Your task to perform on an android device: empty trash in google photos Image 0: 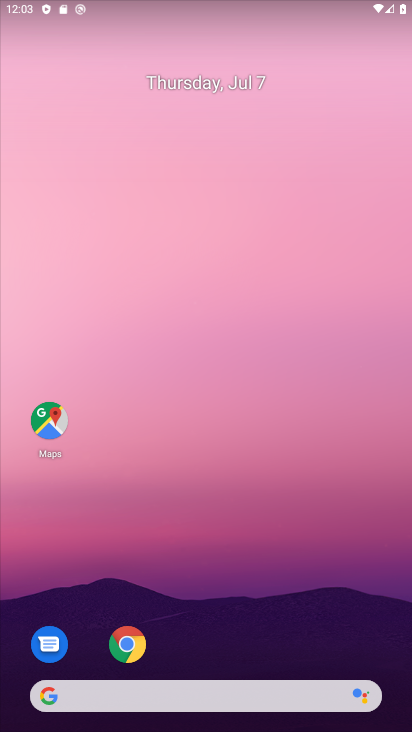
Step 0: drag from (191, 683) to (132, 206)
Your task to perform on an android device: empty trash in google photos Image 1: 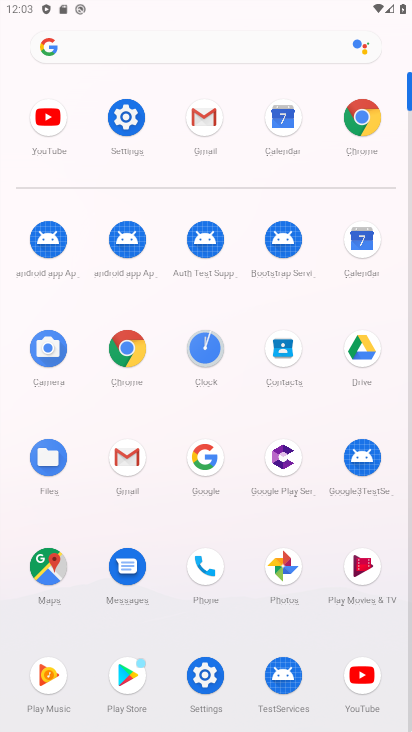
Step 1: click (277, 570)
Your task to perform on an android device: empty trash in google photos Image 2: 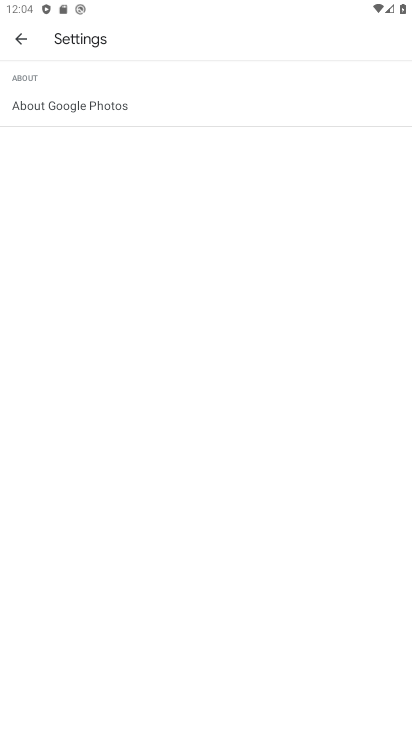
Step 2: click (22, 35)
Your task to perform on an android device: empty trash in google photos Image 3: 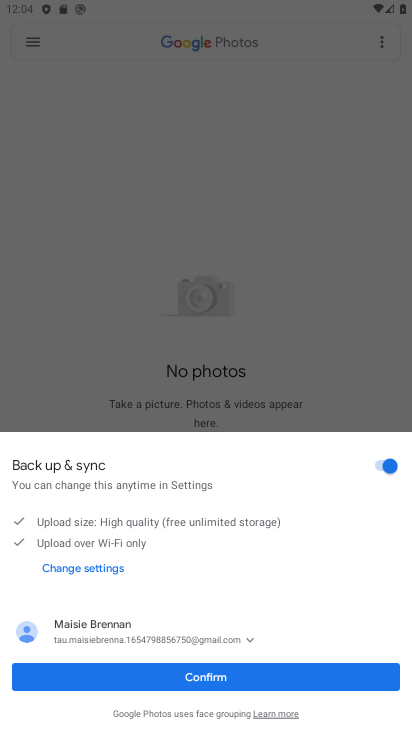
Step 3: click (151, 678)
Your task to perform on an android device: empty trash in google photos Image 4: 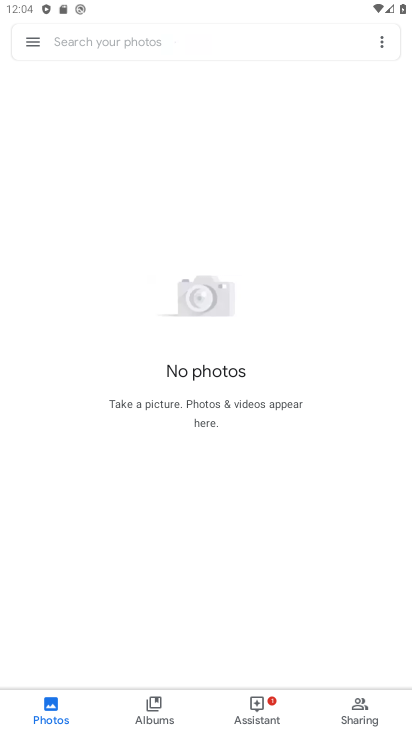
Step 4: click (22, 82)
Your task to perform on an android device: empty trash in google photos Image 5: 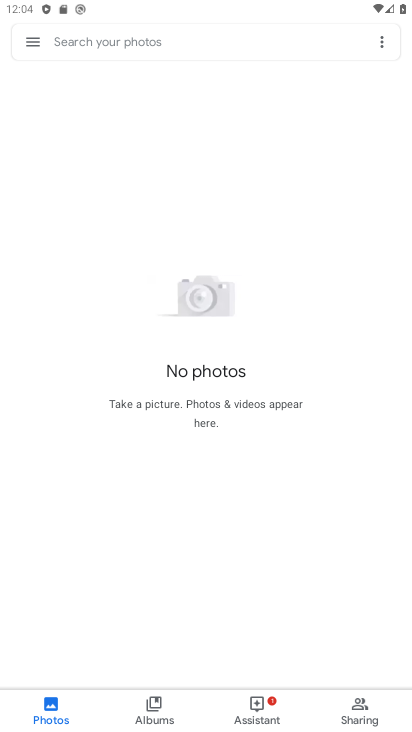
Step 5: click (29, 46)
Your task to perform on an android device: empty trash in google photos Image 6: 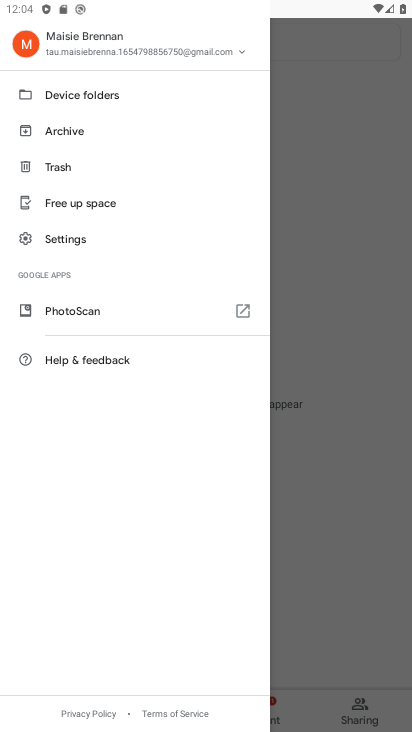
Step 6: click (44, 172)
Your task to perform on an android device: empty trash in google photos Image 7: 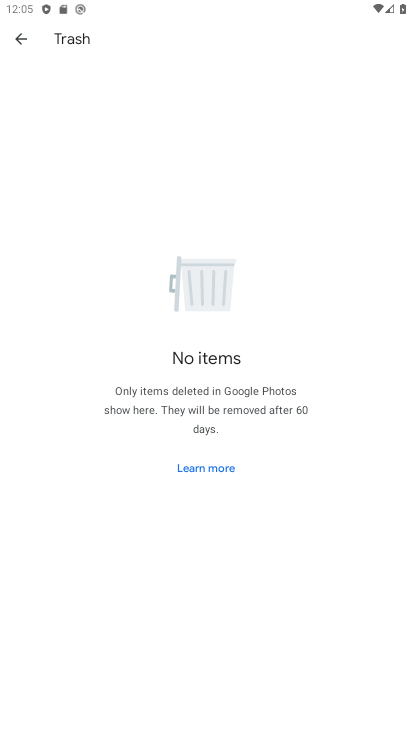
Step 7: task complete